Your task to perform on an android device: Turn on the flashlight Image 0: 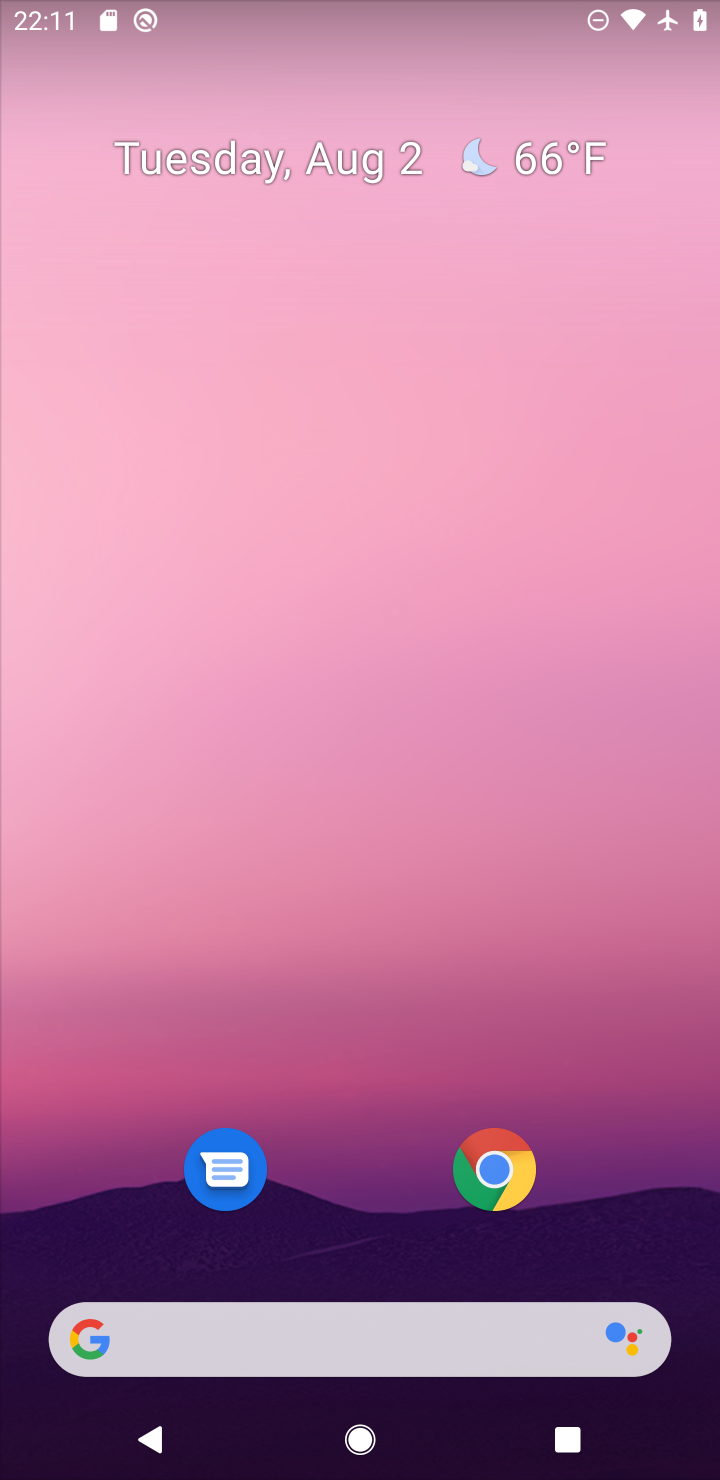
Step 0: drag from (370, 795) to (321, 57)
Your task to perform on an android device: Turn on the flashlight Image 1: 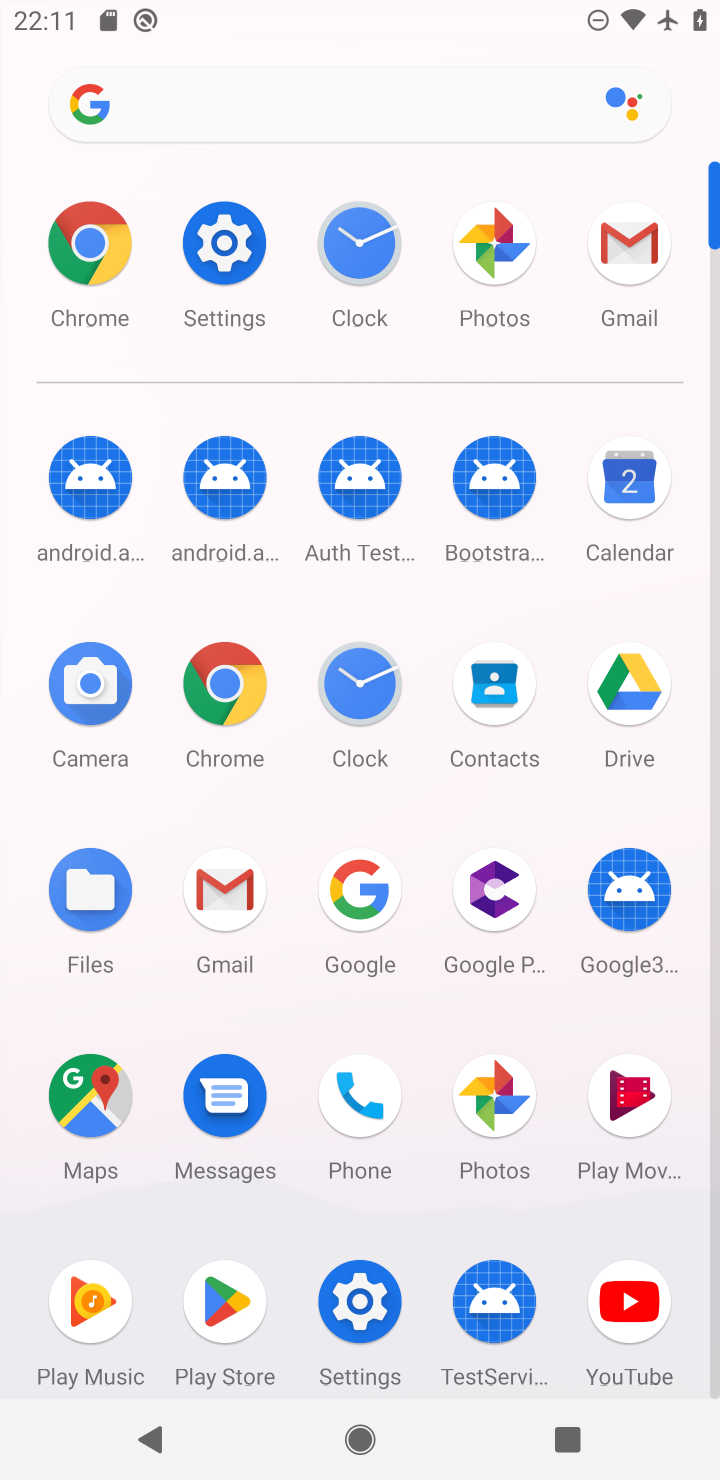
Step 1: click (218, 245)
Your task to perform on an android device: Turn on the flashlight Image 2: 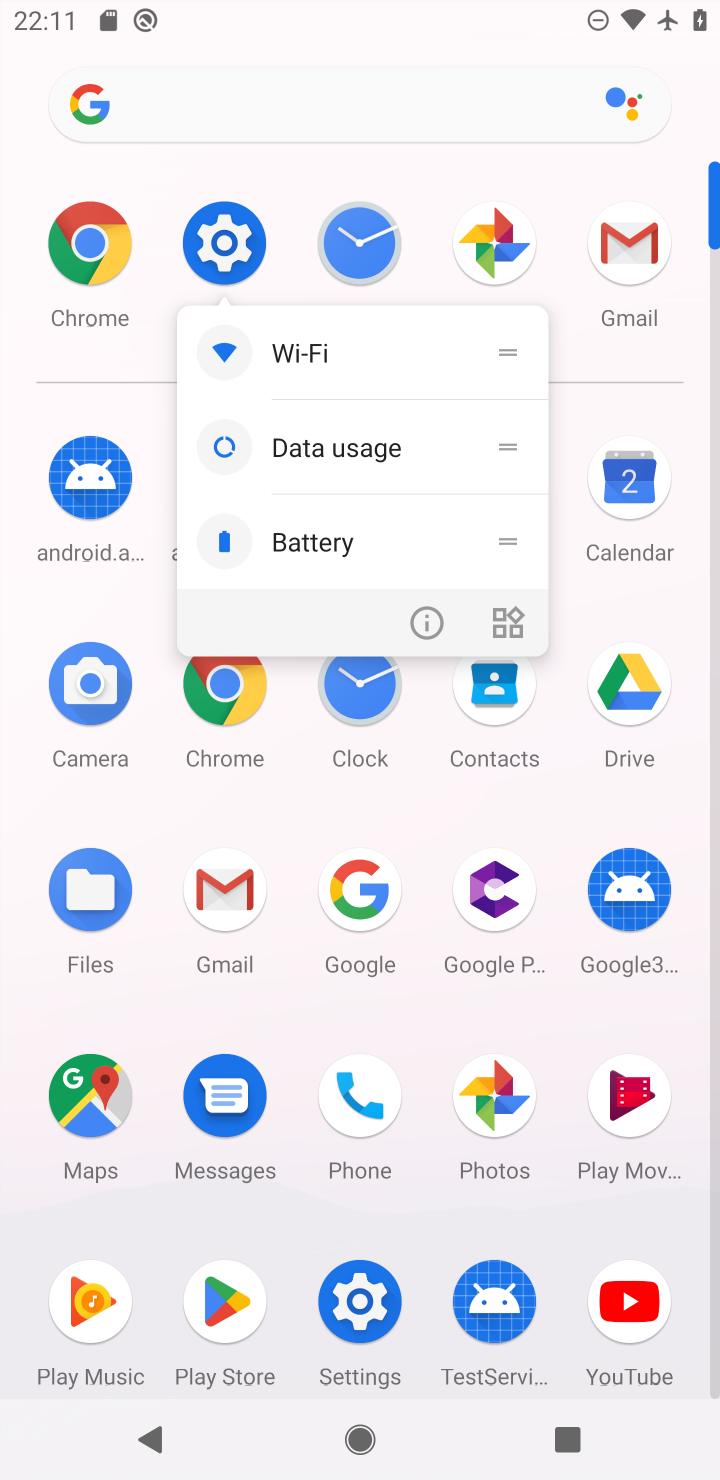
Step 2: click (220, 231)
Your task to perform on an android device: Turn on the flashlight Image 3: 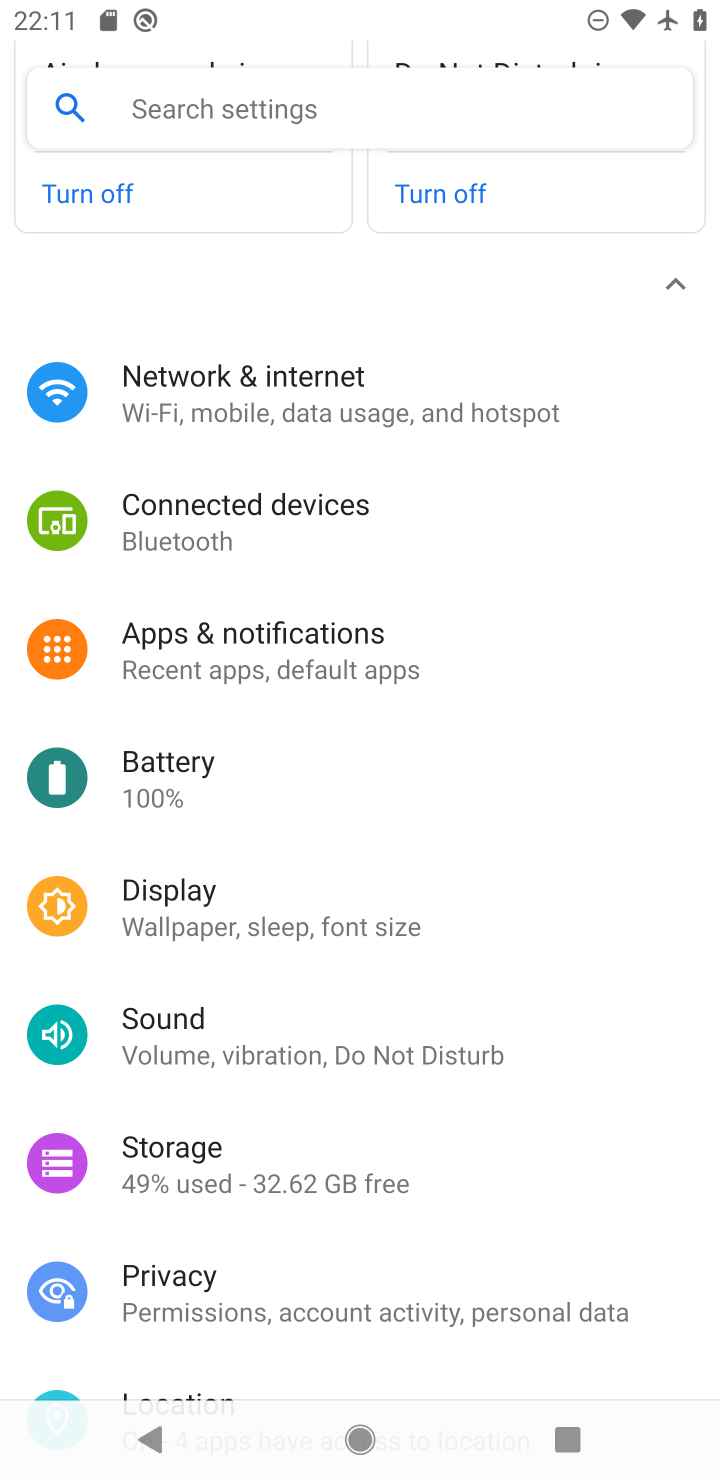
Step 3: task complete